Your task to perform on an android device: toggle improve location accuracy Image 0: 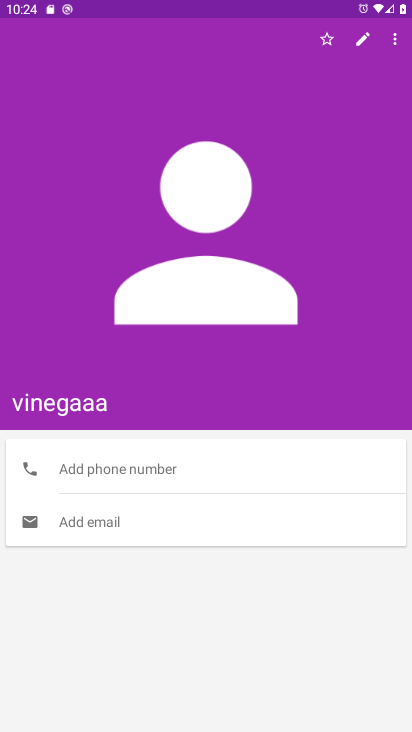
Step 0: press home button
Your task to perform on an android device: toggle improve location accuracy Image 1: 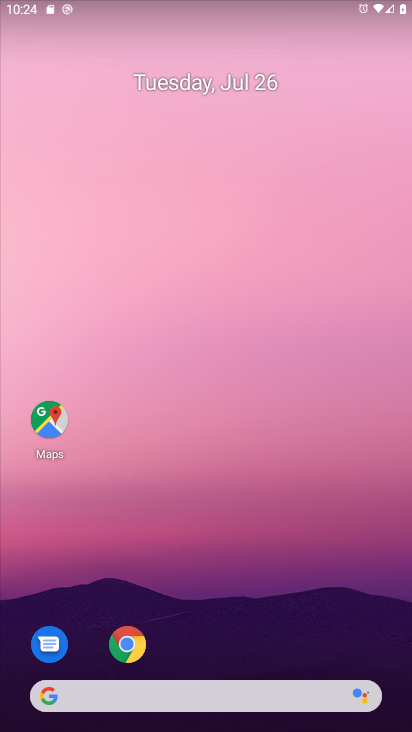
Step 1: drag from (204, 626) to (209, 142)
Your task to perform on an android device: toggle improve location accuracy Image 2: 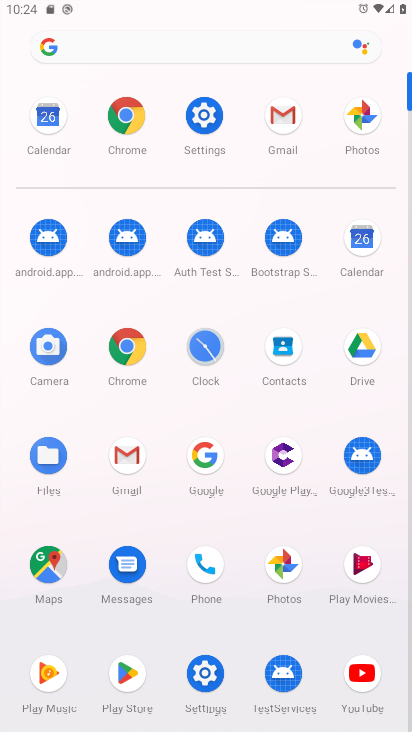
Step 2: click (209, 674)
Your task to perform on an android device: toggle improve location accuracy Image 3: 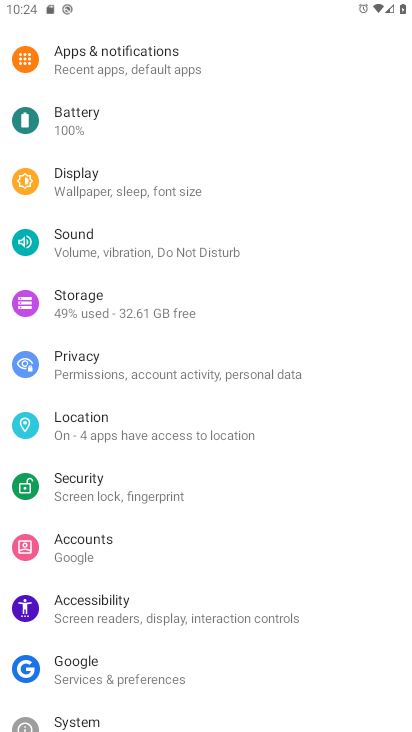
Step 3: click (132, 431)
Your task to perform on an android device: toggle improve location accuracy Image 4: 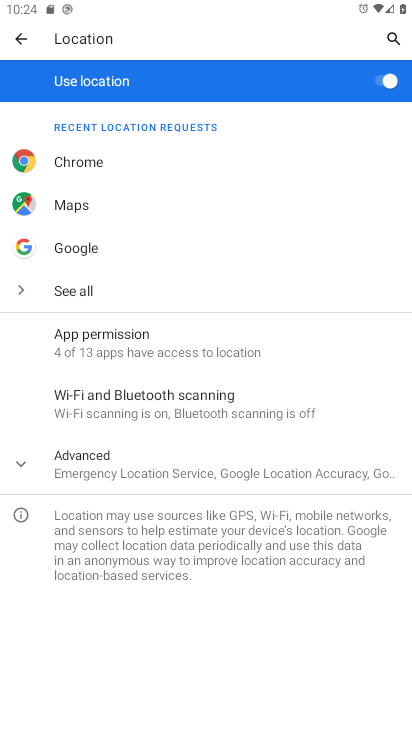
Step 4: click (128, 473)
Your task to perform on an android device: toggle improve location accuracy Image 5: 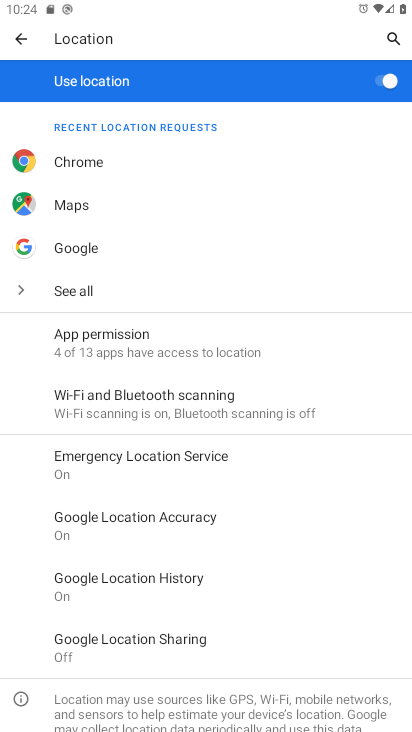
Step 5: click (129, 527)
Your task to perform on an android device: toggle improve location accuracy Image 6: 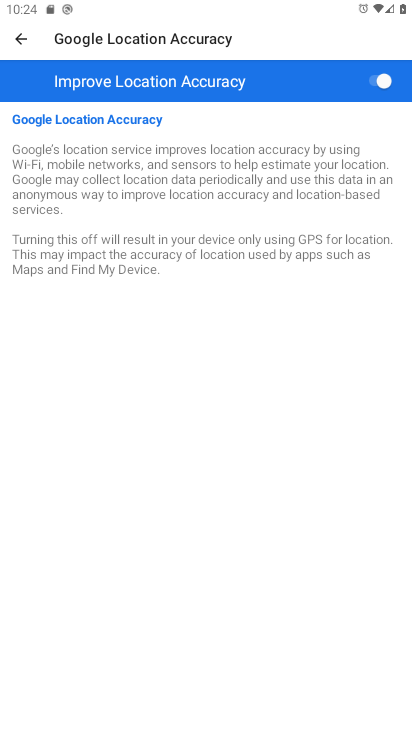
Step 6: click (355, 82)
Your task to perform on an android device: toggle improve location accuracy Image 7: 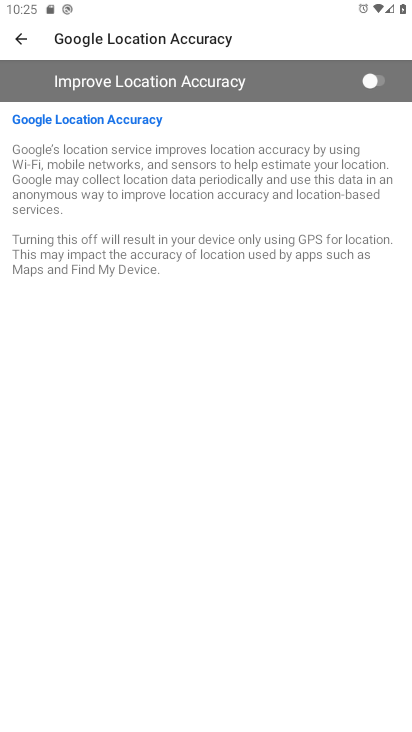
Step 7: task complete